Your task to perform on an android device: Open the map Image 0: 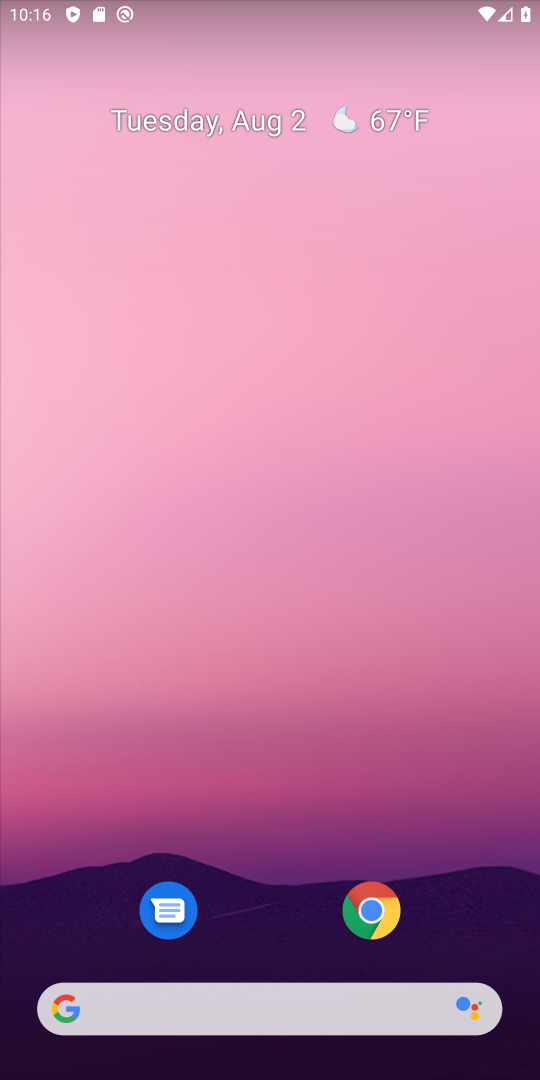
Step 0: drag from (263, 952) to (327, 450)
Your task to perform on an android device: Open the map Image 1: 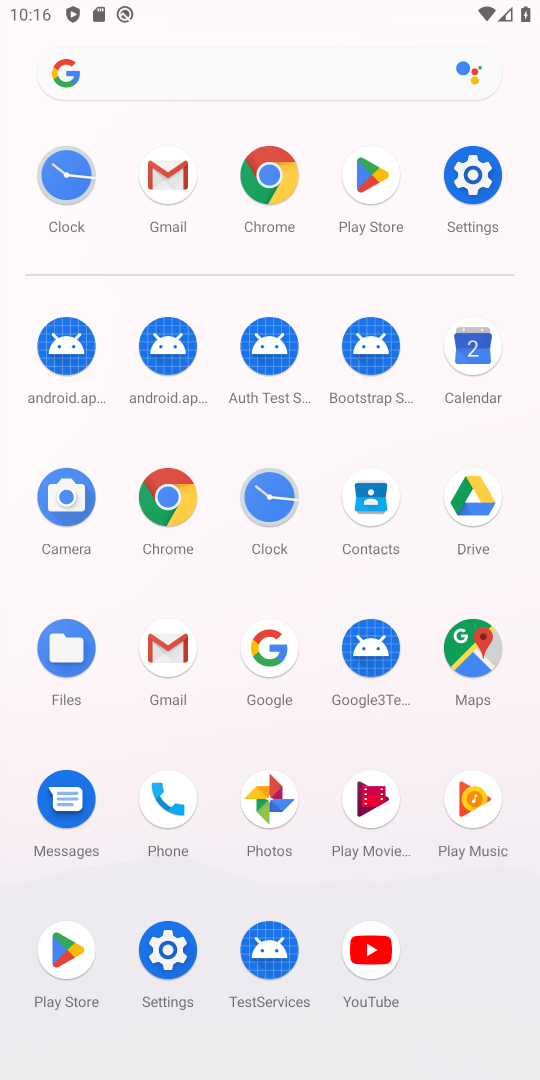
Step 1: click (457, 631)
Your task to perform on an android device: Open the map Image 2: 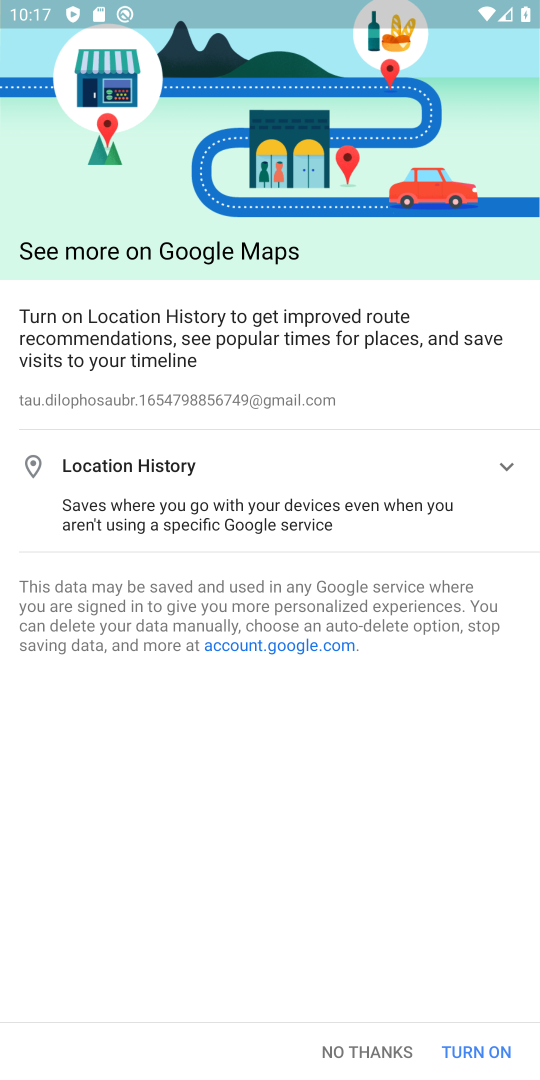
Step 2: click (403, 1052)
Your task to perform on an android device: Open the map Image 3: 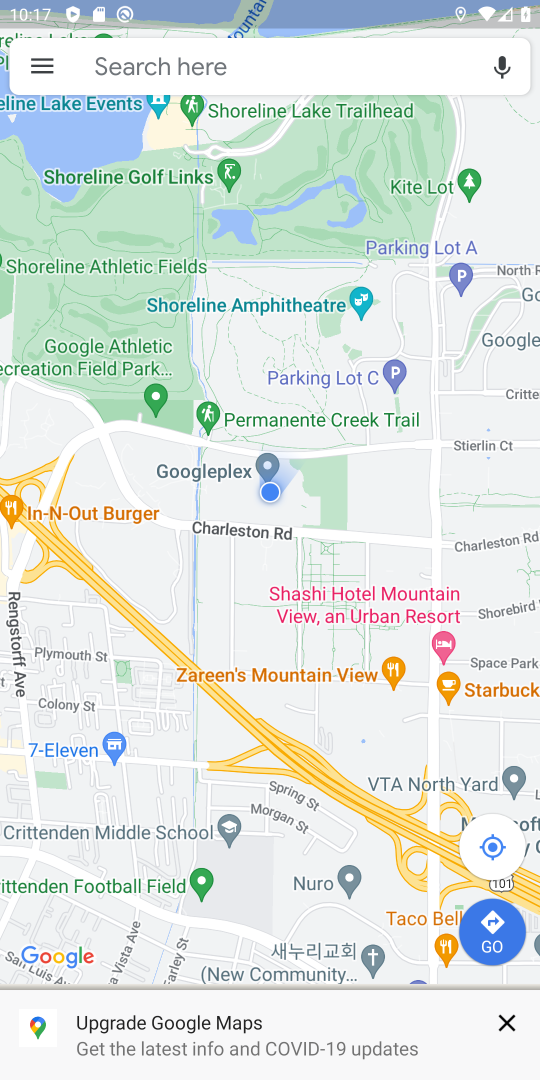
Step 3: task complete